Your task to perform on an android device: Clear the cart on amazon.com. Add "logitech g933" to the cart on amazon.com Image 0: 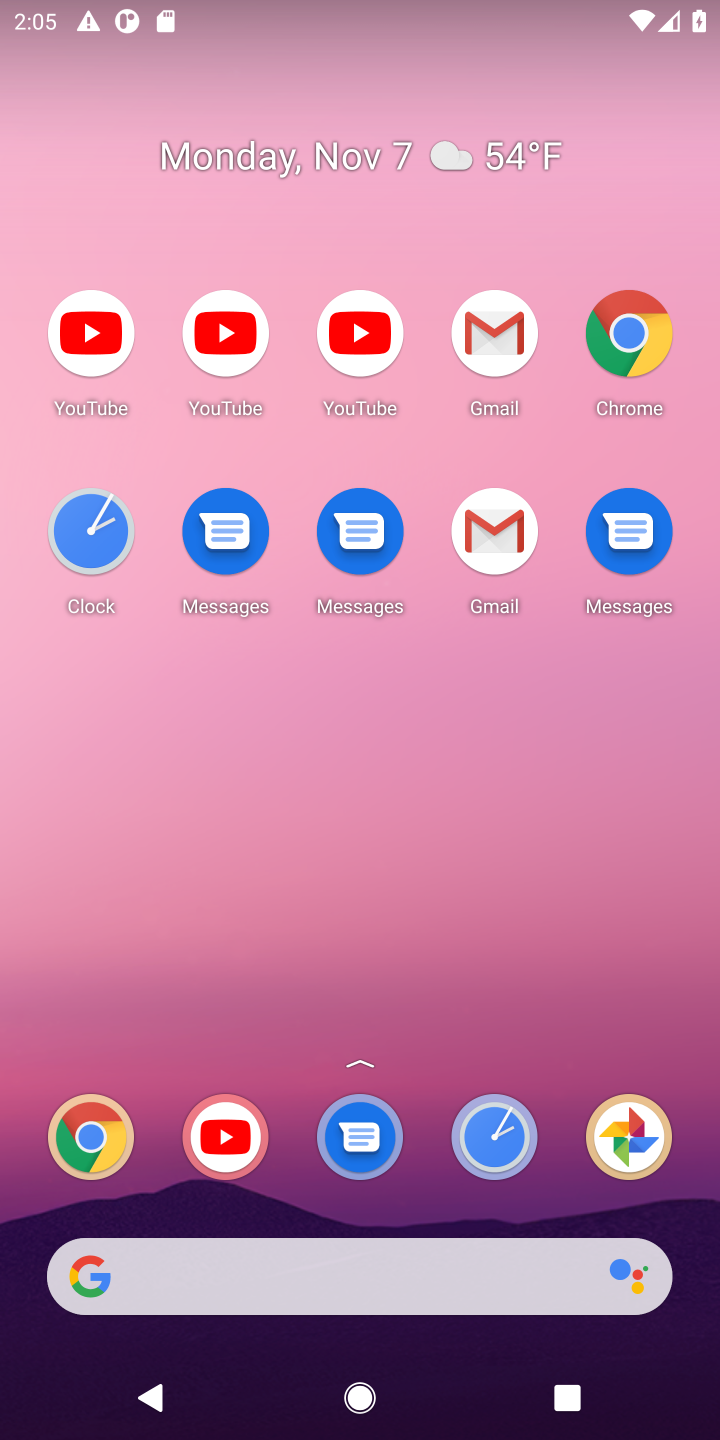
Step 0: drag from (433, 1158) to (307, 231)
Your task to perform on an android device: Clear the cart on amazon.com. Add "logitech g933" to the cart on amazon.com Image 1: 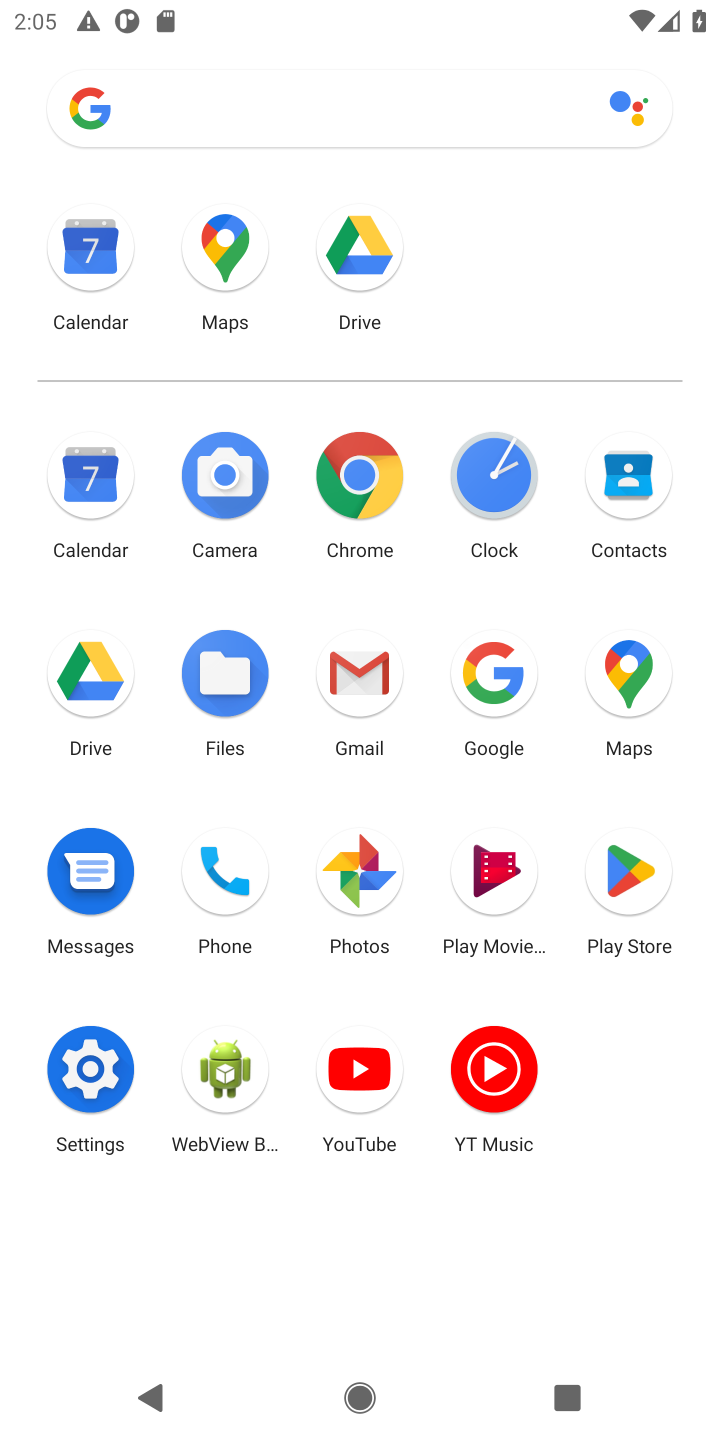
Step 1: click (366, 474)
Your task to perform on an android device: Clear the cart on amazon.com. Add "logitech g933" to the cart on amazon.com Image 2: 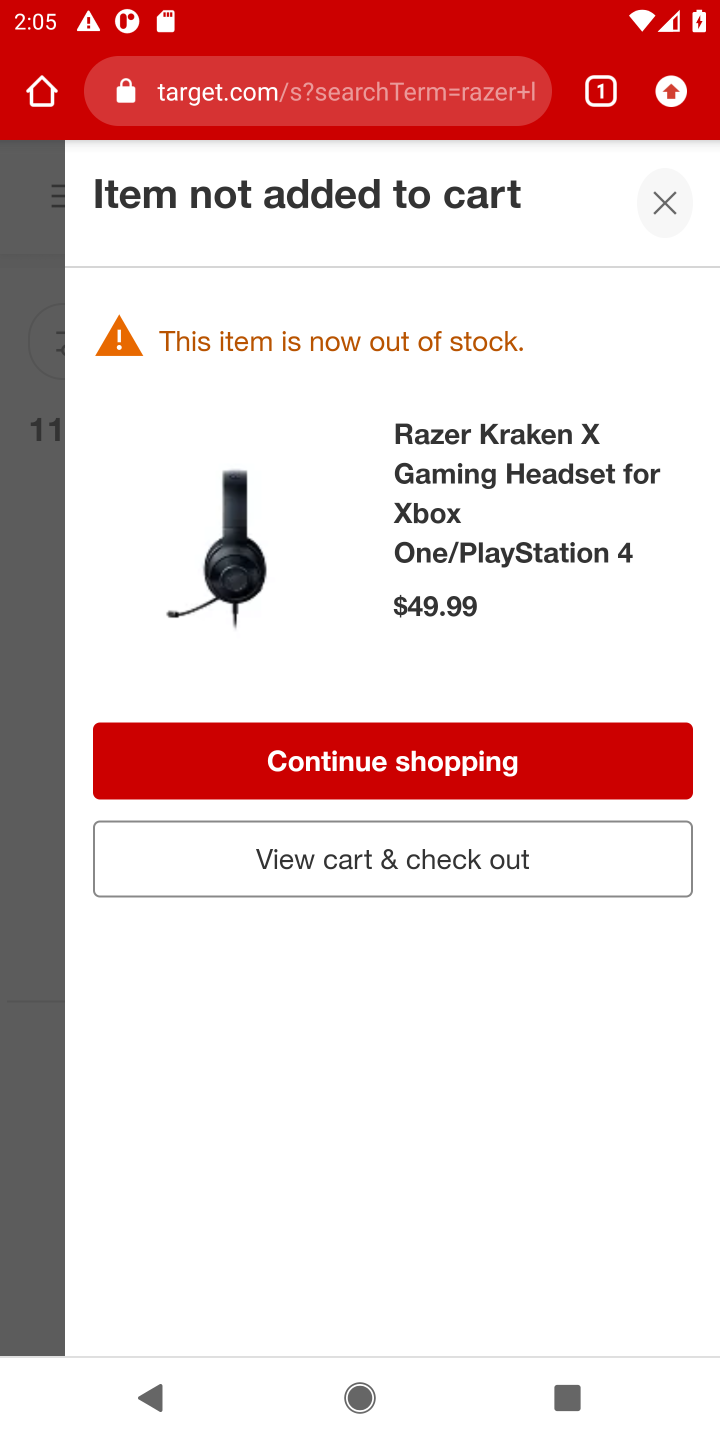
Step 2: click (372, 94)
Your task to perform on an android device: Clear the cart on amazon.com. Add "logitech g933" to the cart on amazon.com Image 3: 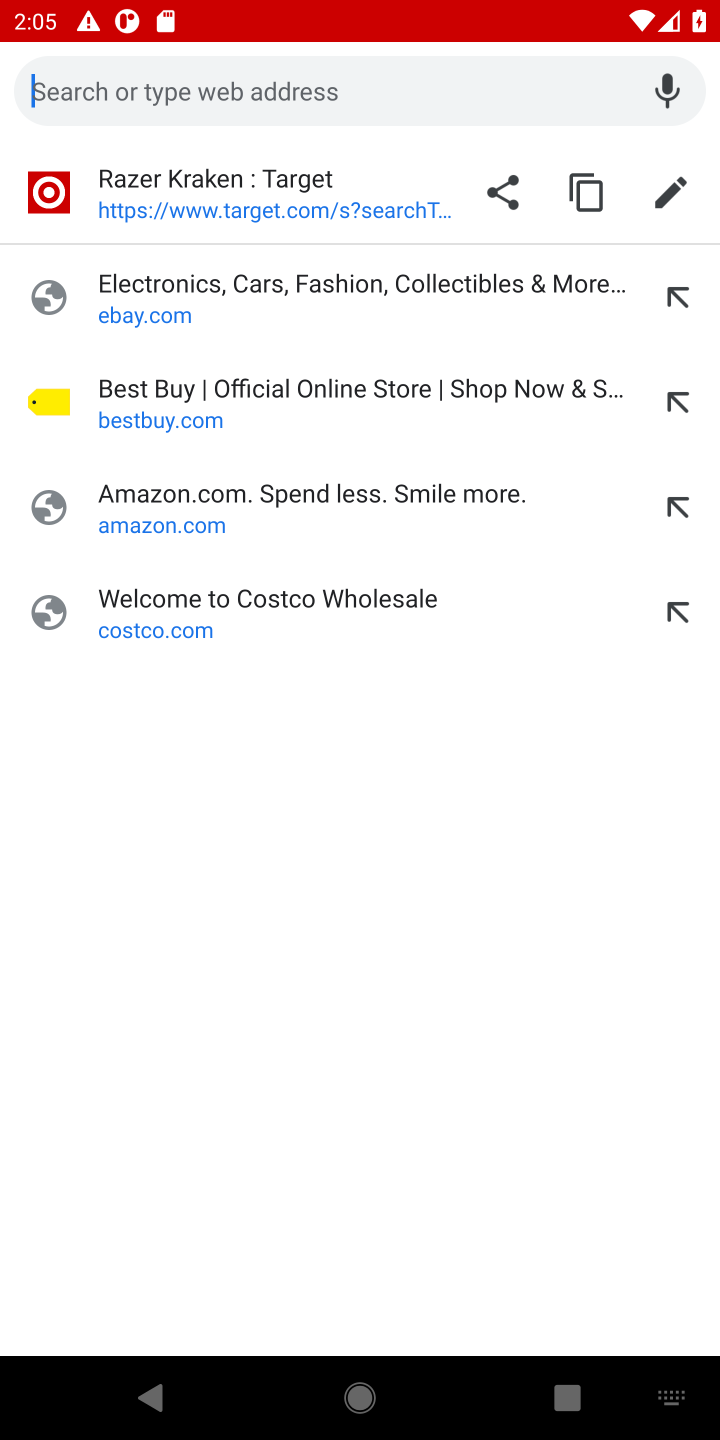
Step 3: type "amazon.com"
Your task to perform on an android device: Clear the cart on amazon.com. Add "logitech g933" to the cart on amazon.com Image 4: 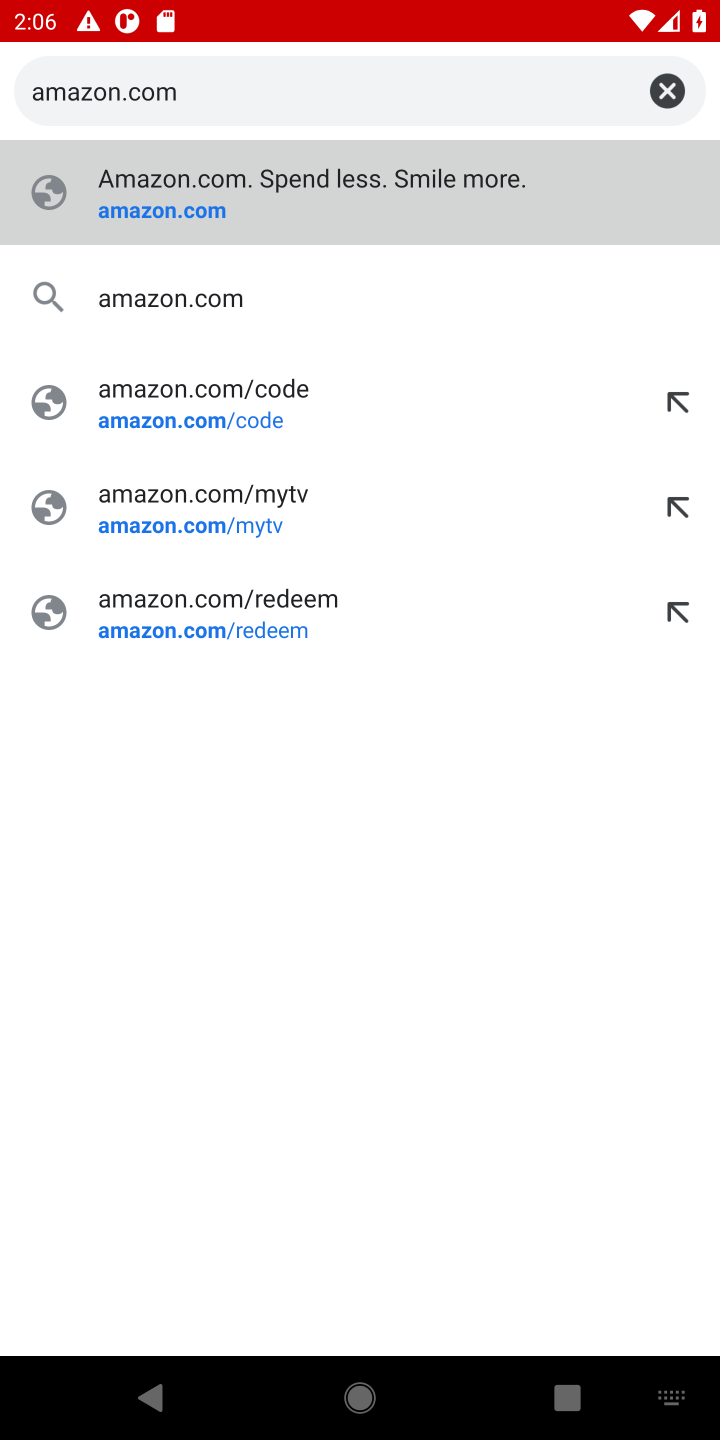
Step 4: press enter
Your task to perform on an android device: Clear the cart on amazon.com. Add "logitech g933" to the cart on amazon.com Image 5: 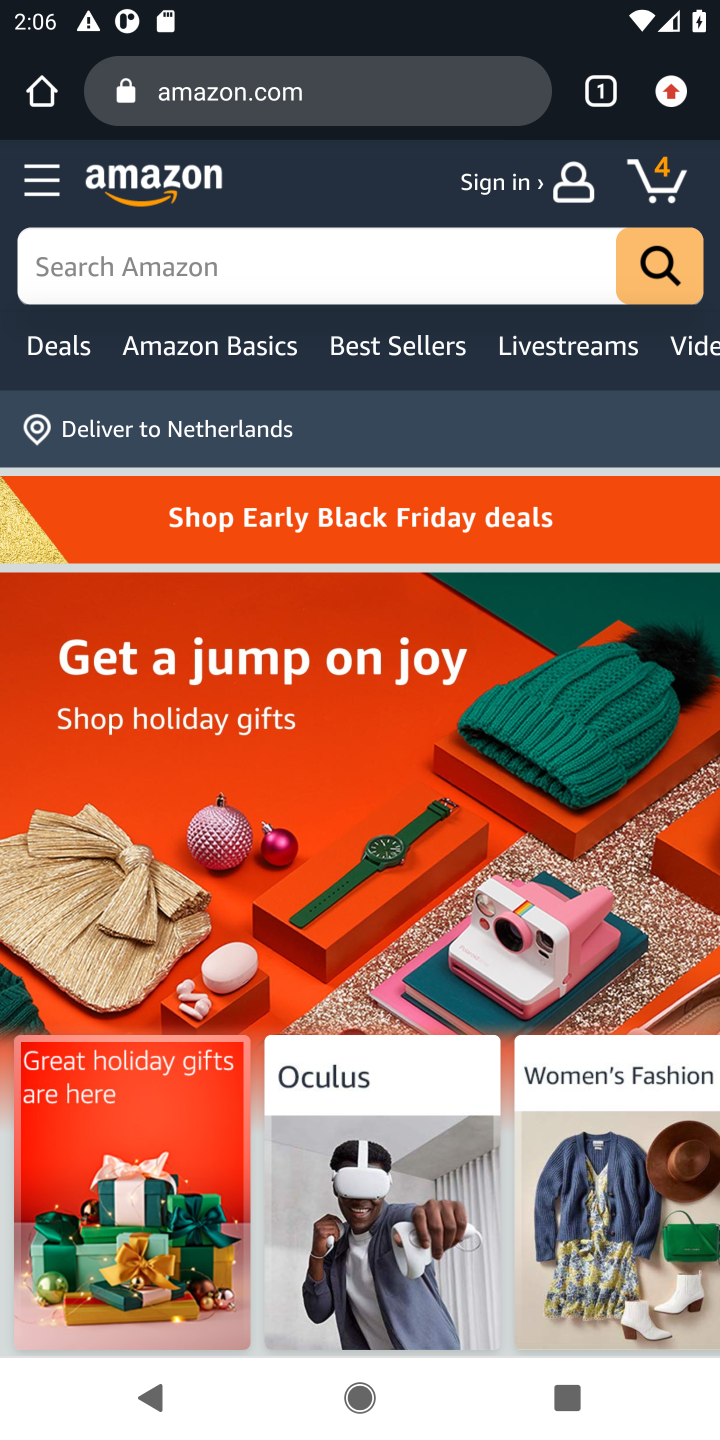
Step 5: click (682, 185)
Your task to perform on an android device: Clear the cart on amazon.com. Add "logitech g933" to the cart on amazon.com Image 6: 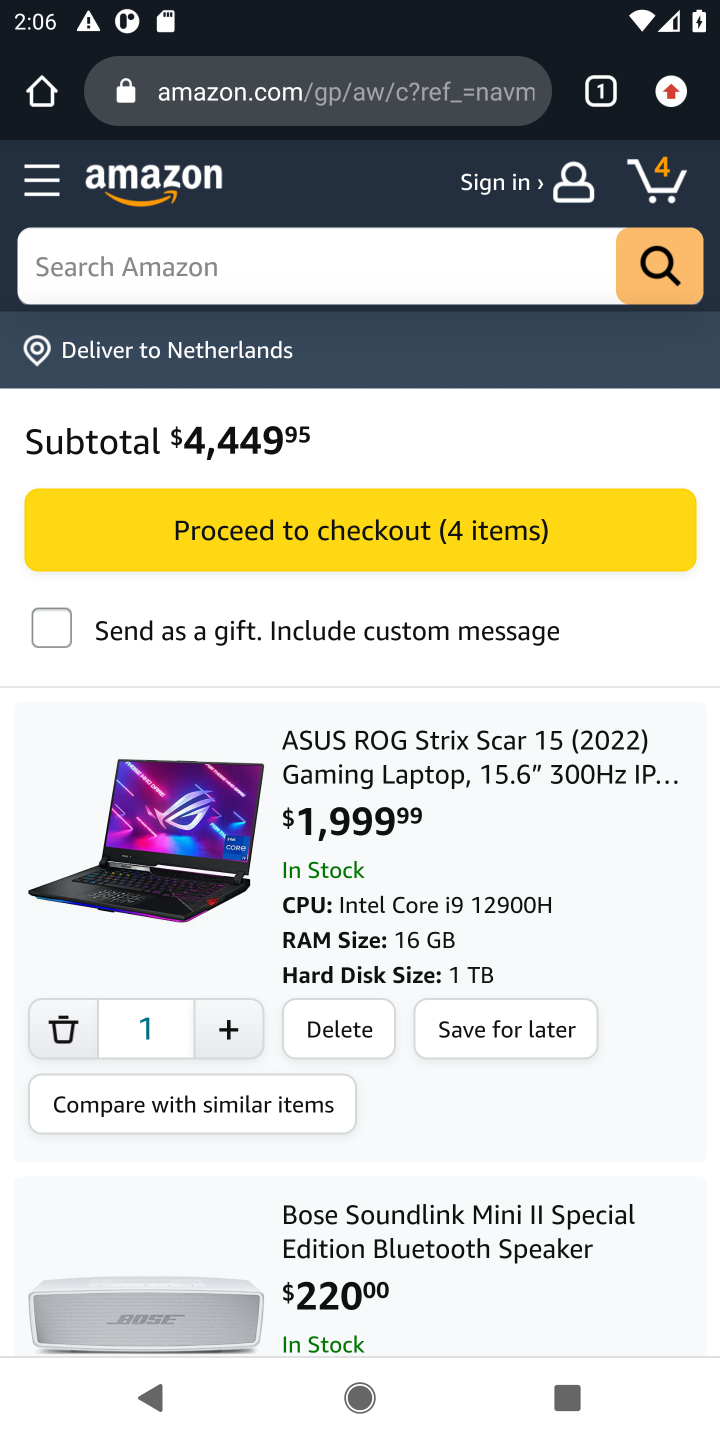
Step 6: click (354, 1032)
Your task to perform on an android device: Clear the cart on amazon.com. Add "logitech g933" to the cart on amazon.com Image 7: 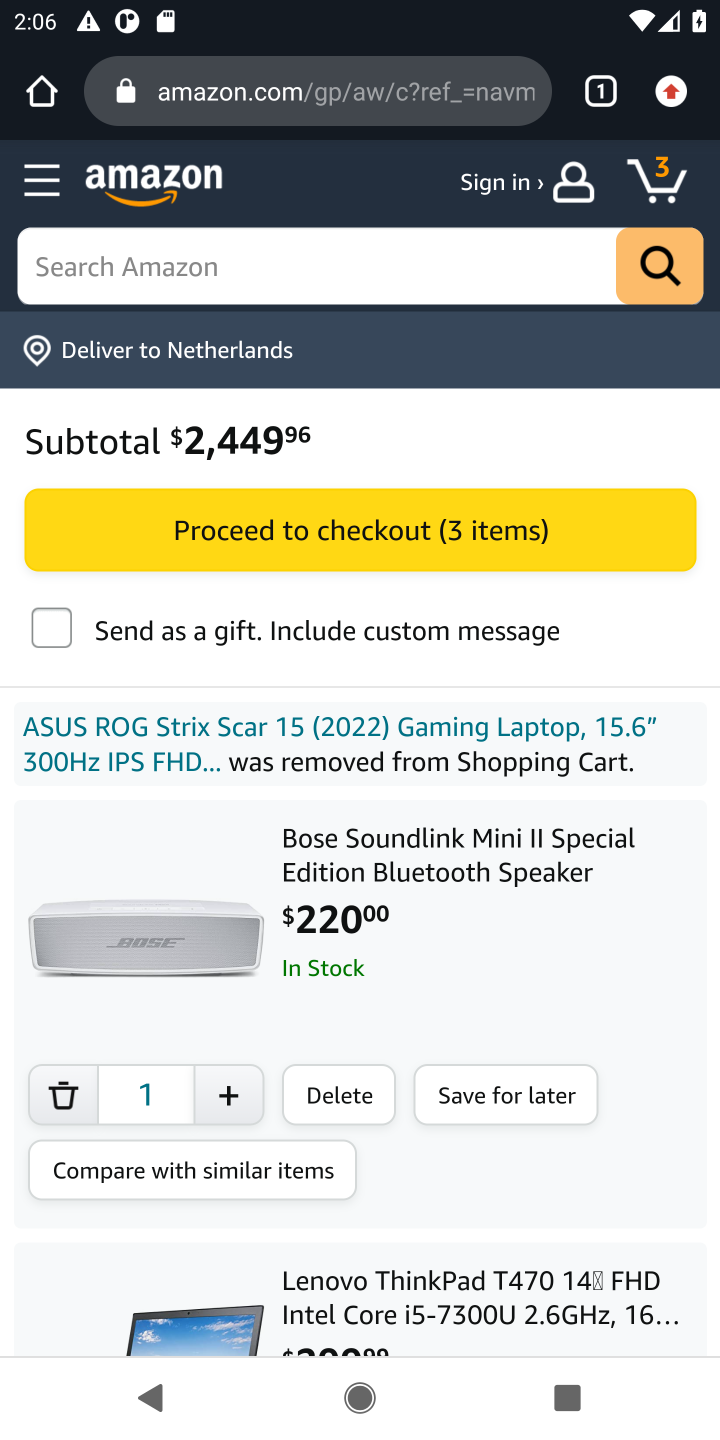
Step 7: click (378, 1093)
Your task to perform on an android device: Clear the cart on amazon.com. Add "logitech g933" to the cart on amazon.com Image 8: 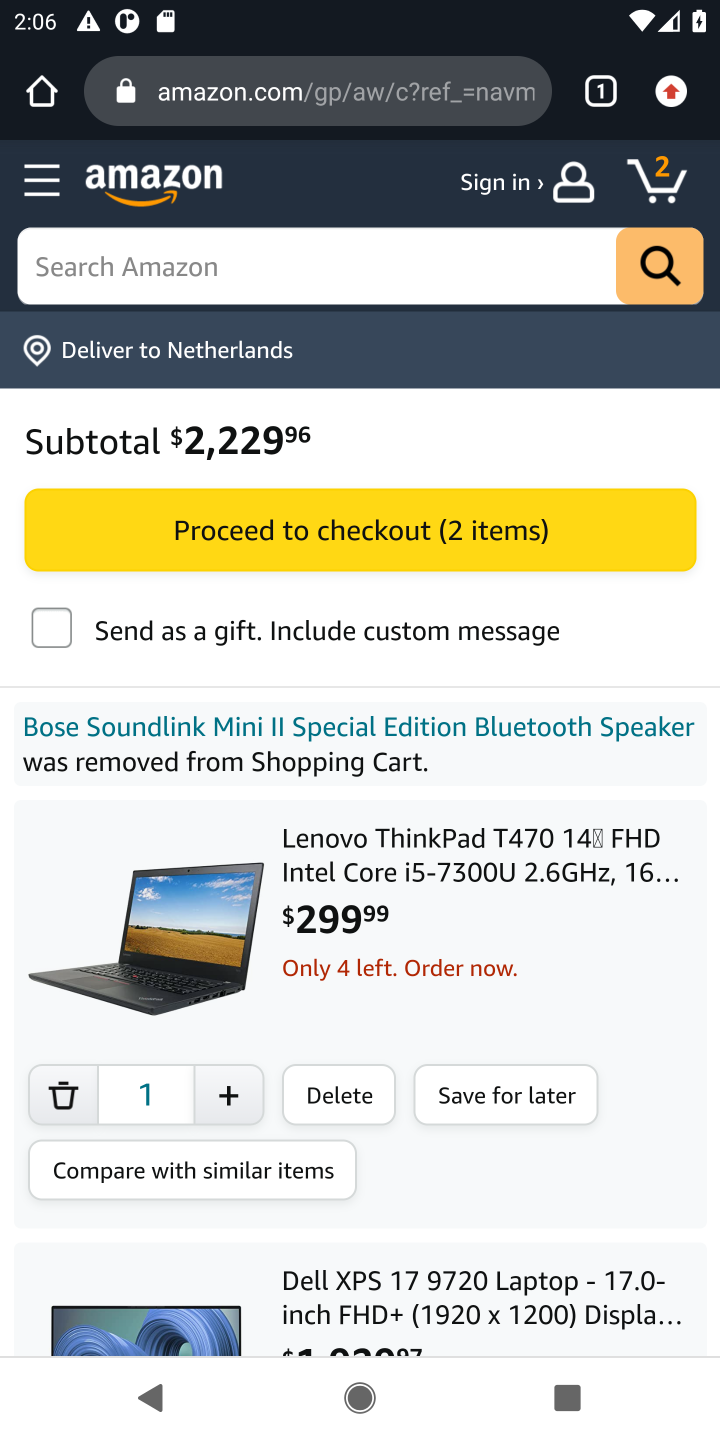
Step 8: click (339, 1095)
Your task to perform on an android device: Clear the cart on amazon.com. Add "logitech g933" to the cart on amazon.com Image 9: 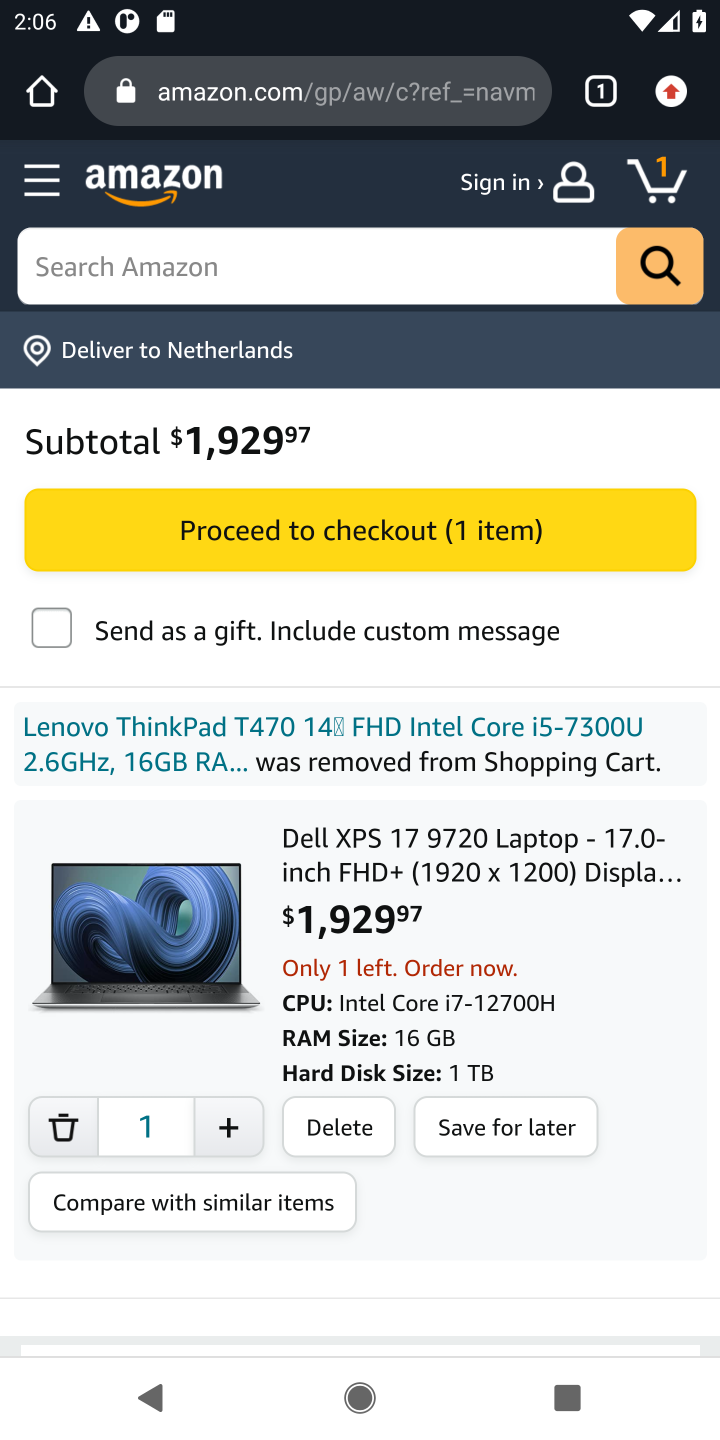
Step 9: click (338, 1116)
Your task to perform on an android device: Clear the cart on amazon.com. Add "logitech g933" to the cart on amazon.com Image 10: 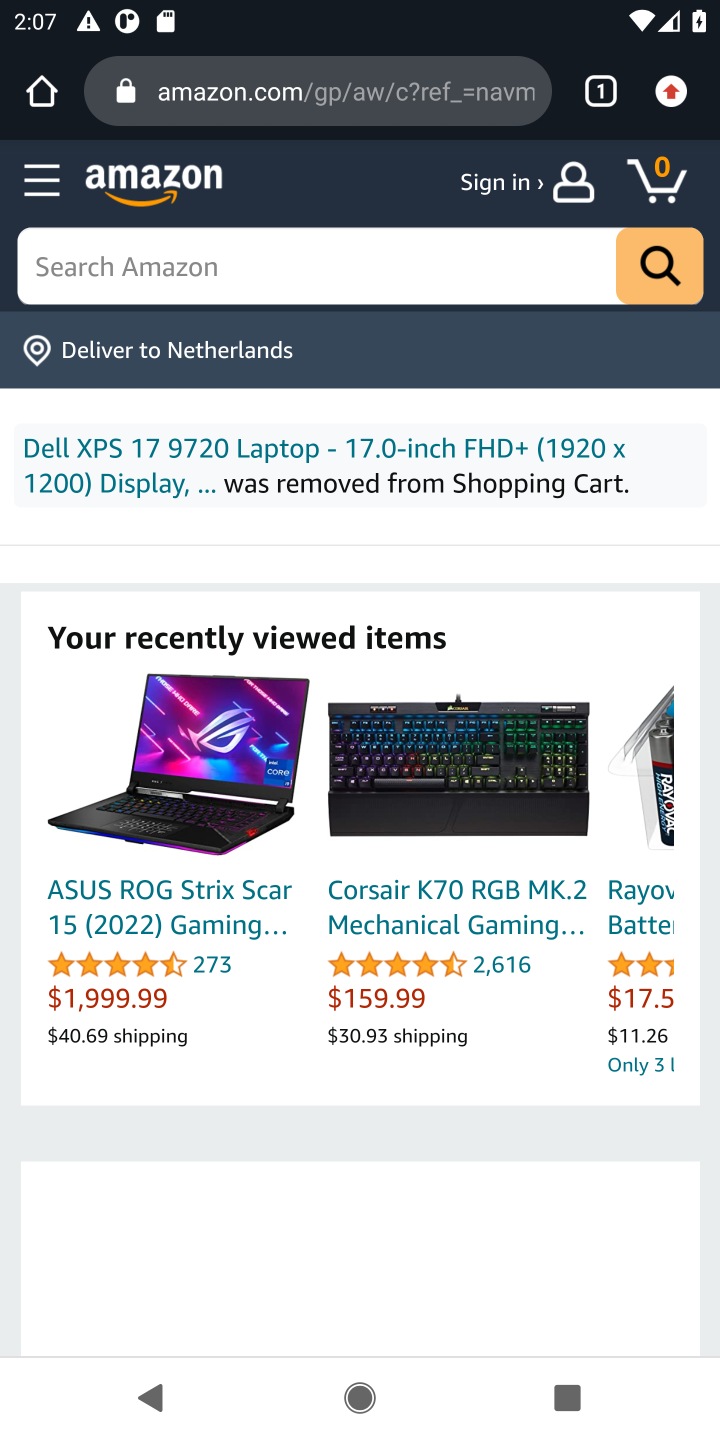
Step 10: click (413, 260)
Your task to perform on an android device: Clear the cart on amazon.com. Add "logitech g933" to the cart on amazon.com Image 11: 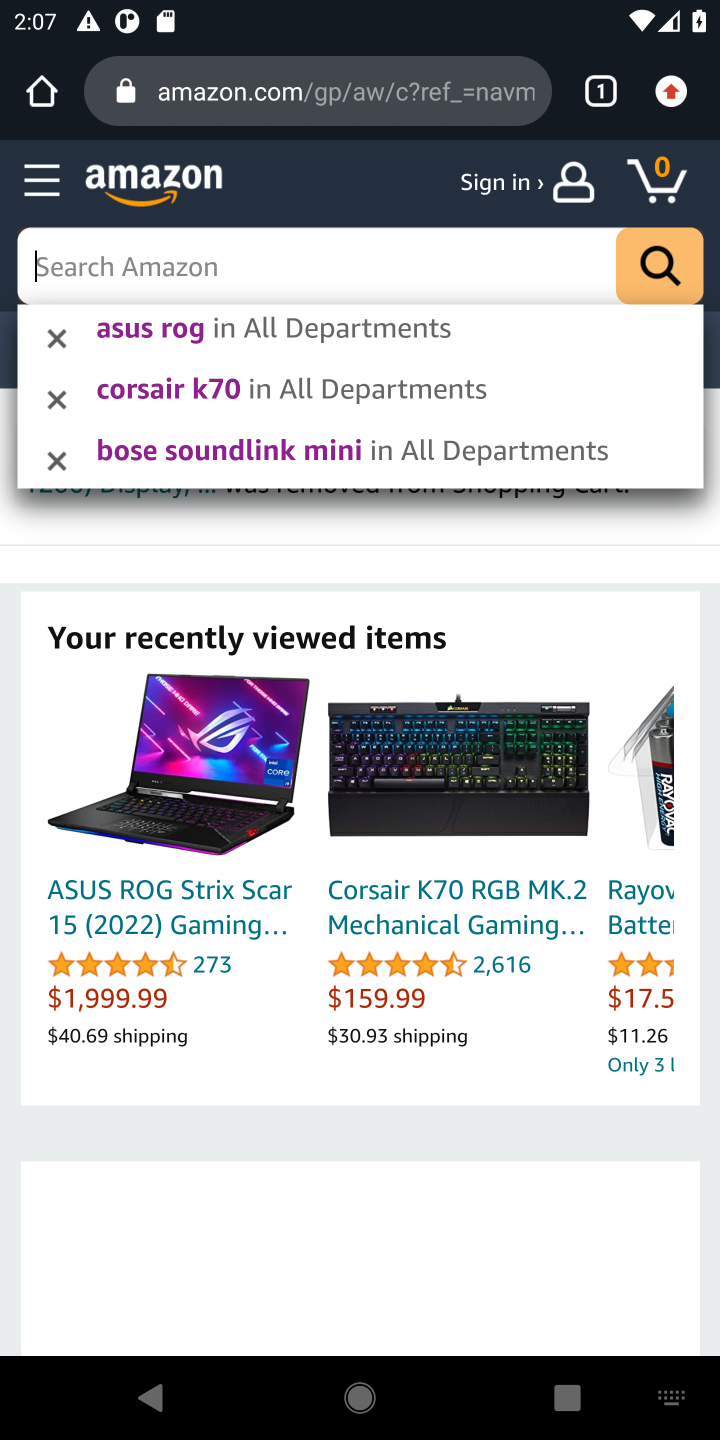
Step 11: type "logitech g933"
Your task to perform on an android device: Clear the cart on amazon.com. Add "logitech g933" to the cart on amazon.com Image 12: 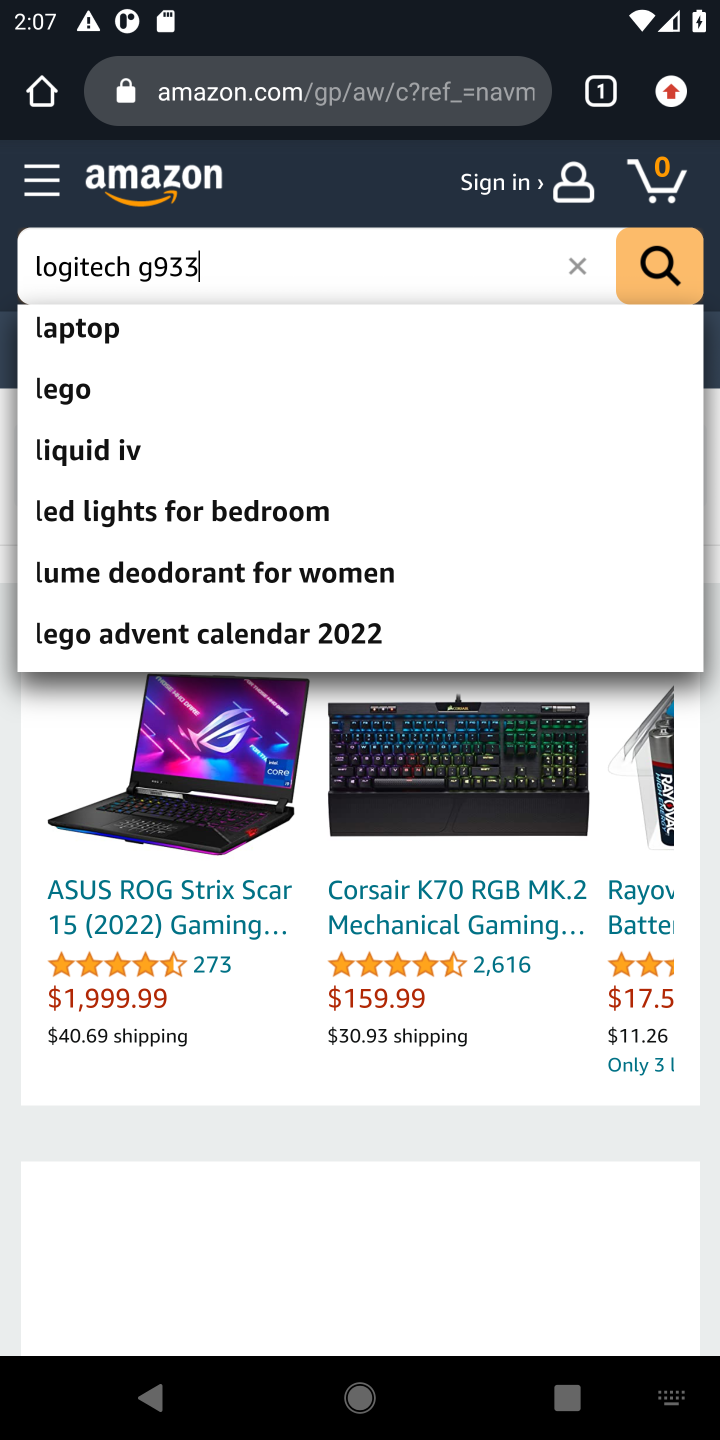
Step 12: press enter
Your task to perform on an android device: Clear the cart on amazon.com. Add "logitech g933" to the cart on amazon.com Image 13: 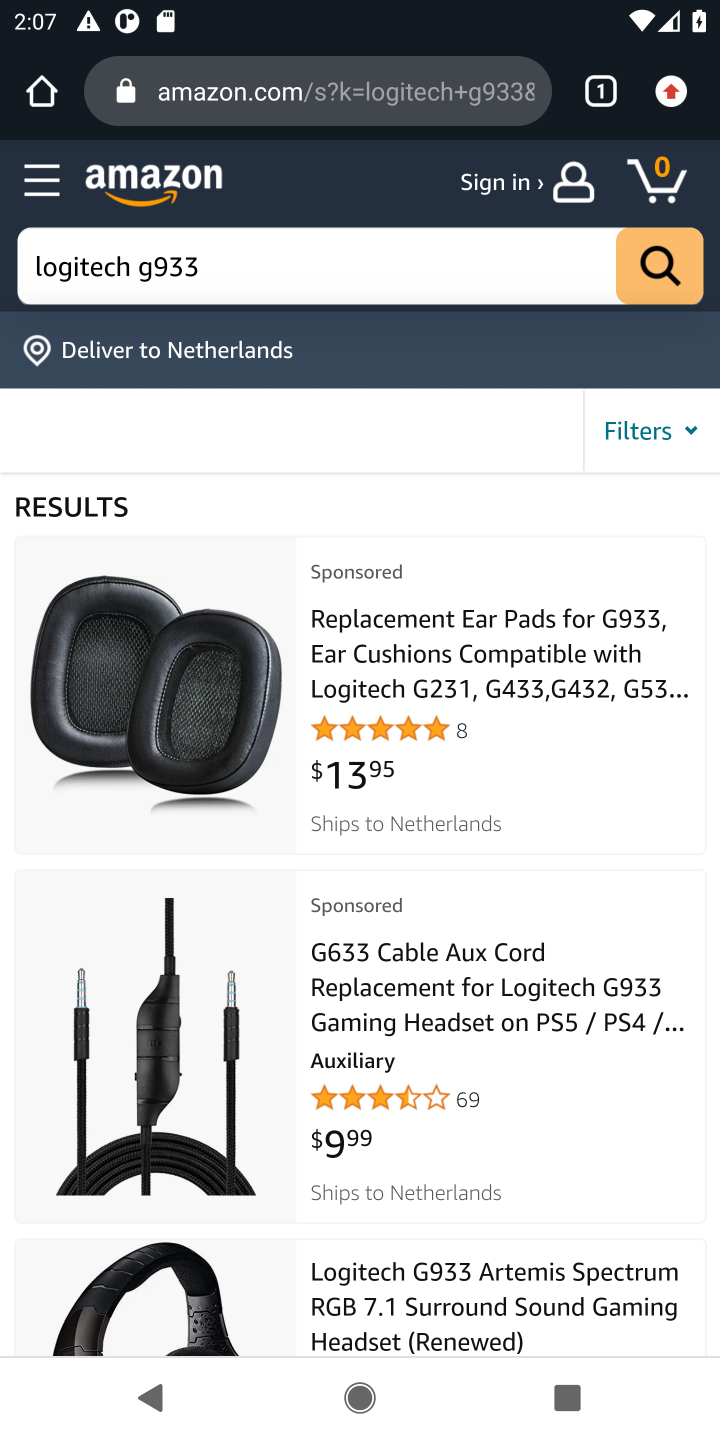
Step 13: drag from (441, 1244) to (484, 572)
Your task to perform on an android device: Clear the cart on amazon.com. Add "logitech g933" to the cart on amazon.com Image 14: 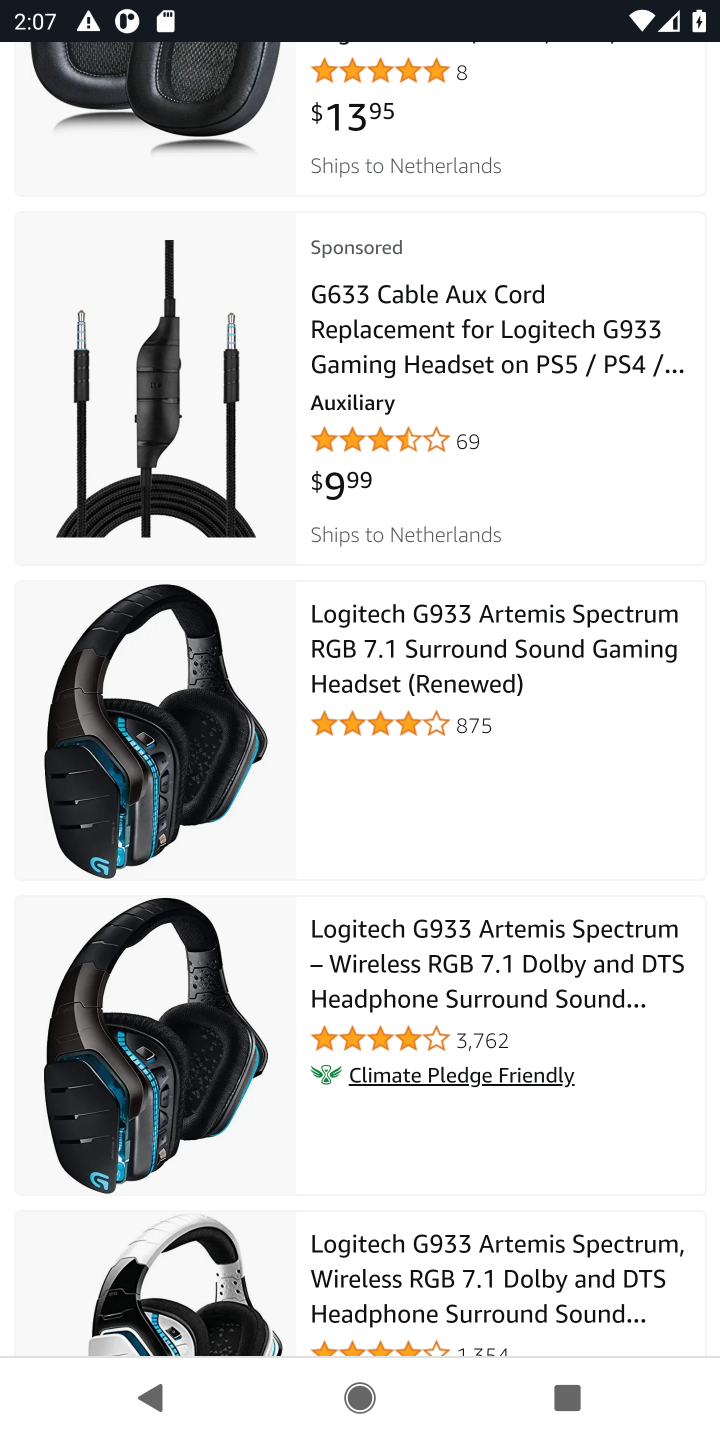
Step 14: click (461, 663)
Your task to perform on an android device: Clear the cart on amazon.com. Add "logitech g933" to the cart on amazon.com Image 15: 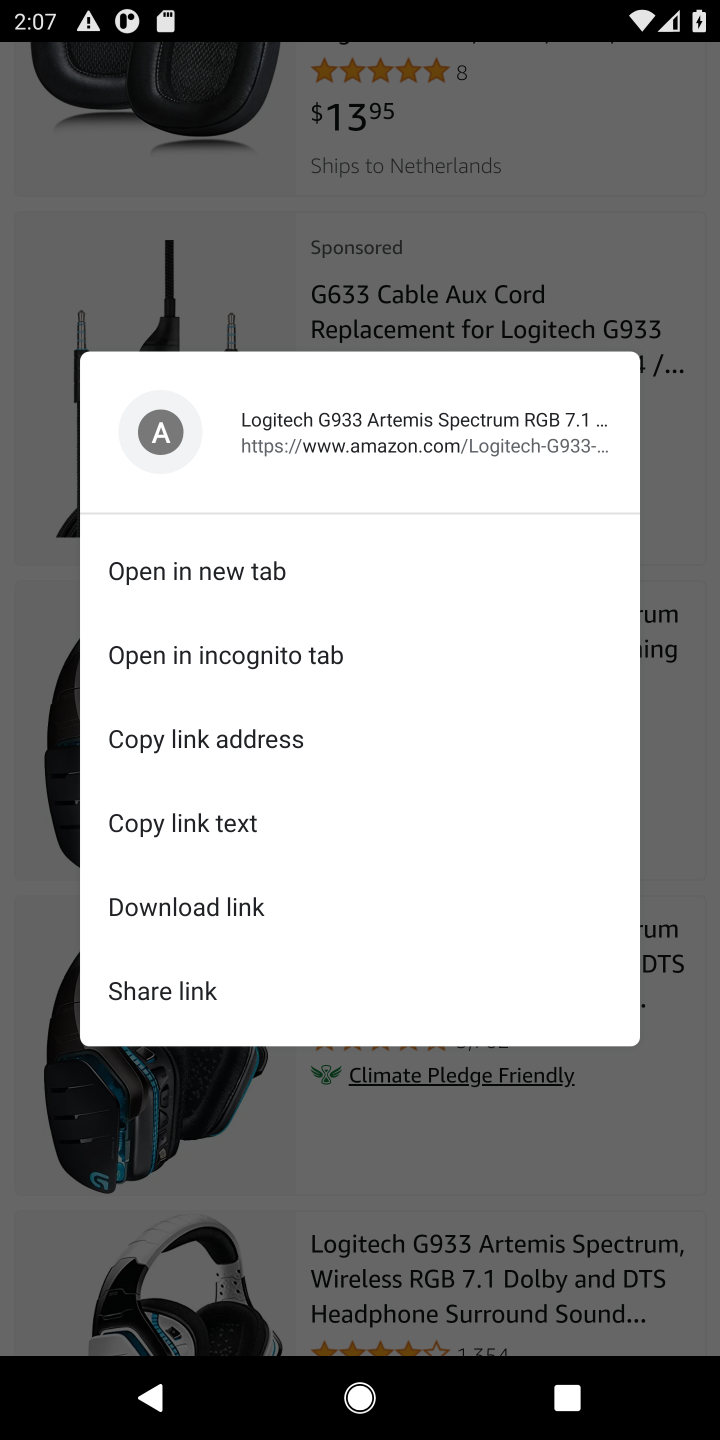
Step 15: click (36, 678)
Your task to perform on an android device: Clear the cart on amazon.com. Add "logitech g933" to the cart on amazon.com Image 16: 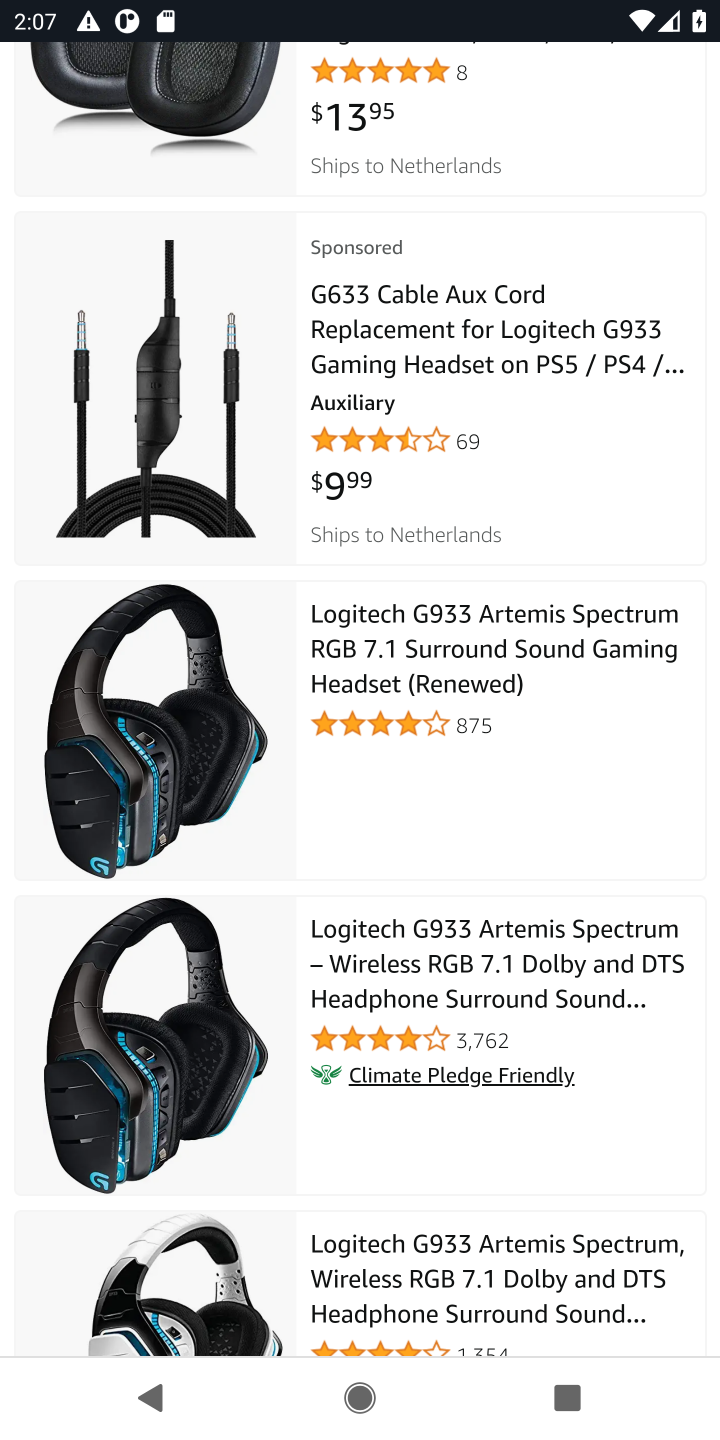
Step 16: click (402, 653)
Your task to perform on an android device: Clear the cart on amazon.com. Add "logitech g933" to the cart on amazon.com Image 17: 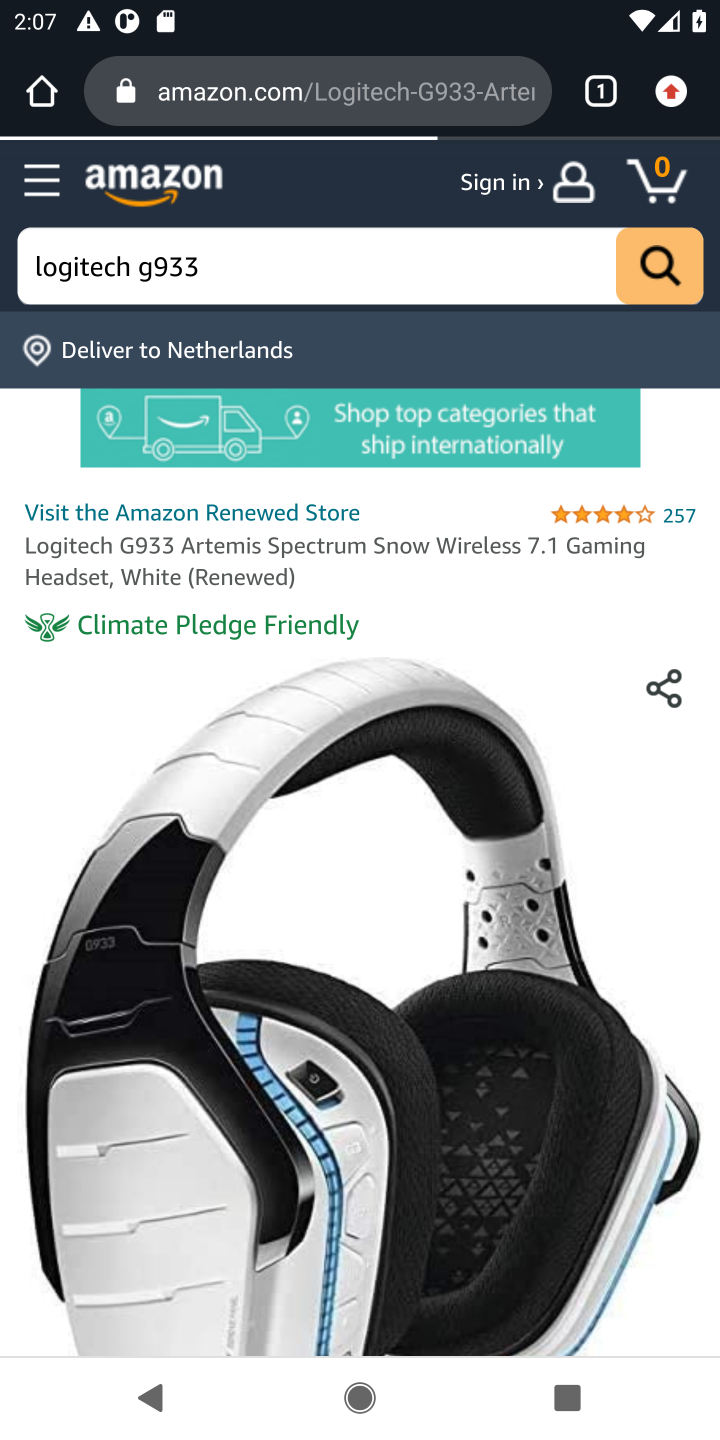
Step 17: task complete